Your task to perform on an android device: Do I have any events this weekend? Image 0: 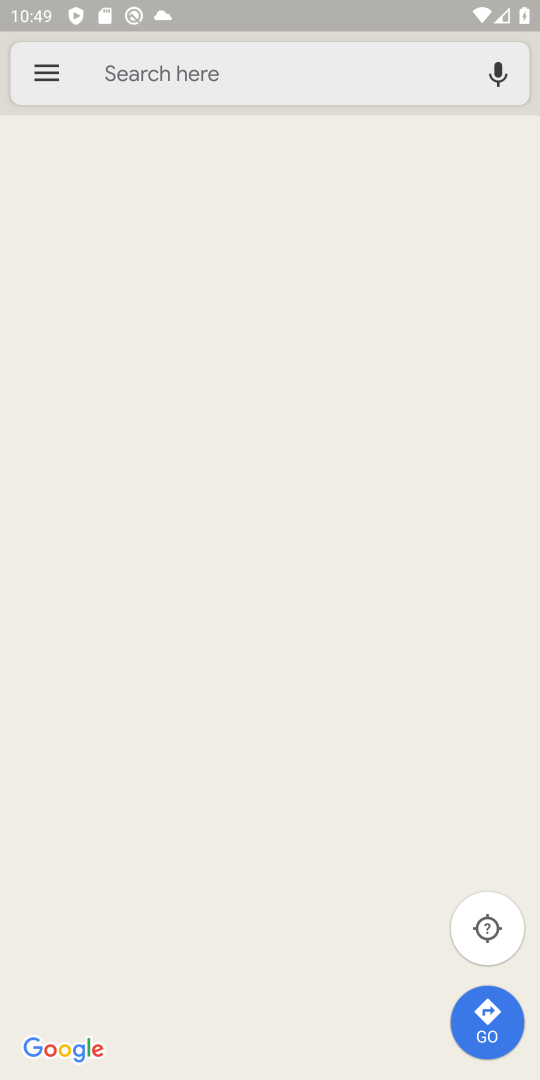
Step 0: press home button
Your task to perform on an android device: Do I have any events this weekend? Image 1: 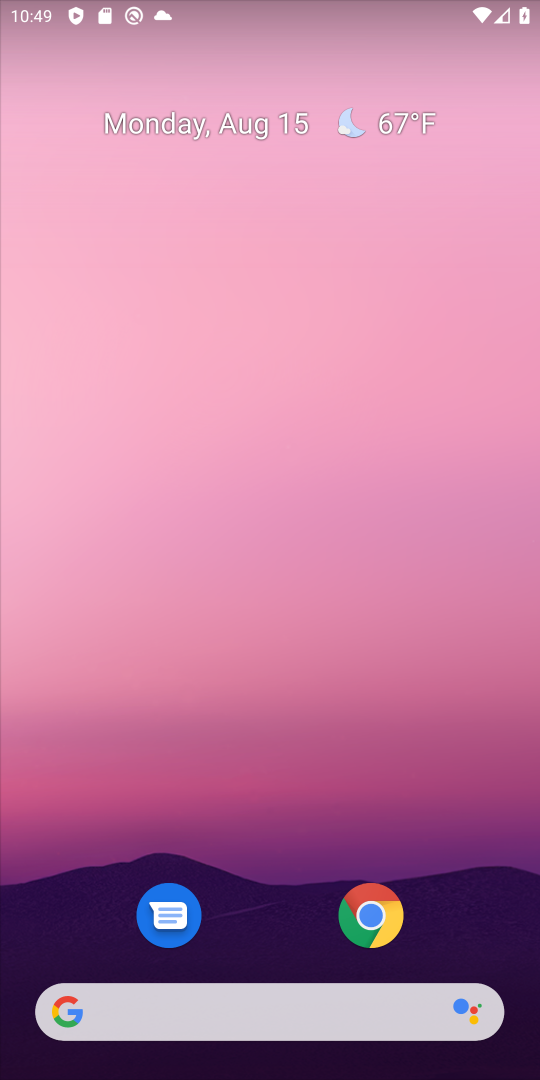
Step 1: drag from (293, 814) to (269, 393)
Your task to perform on an android device: Do I have any events this weekend? Image 2: 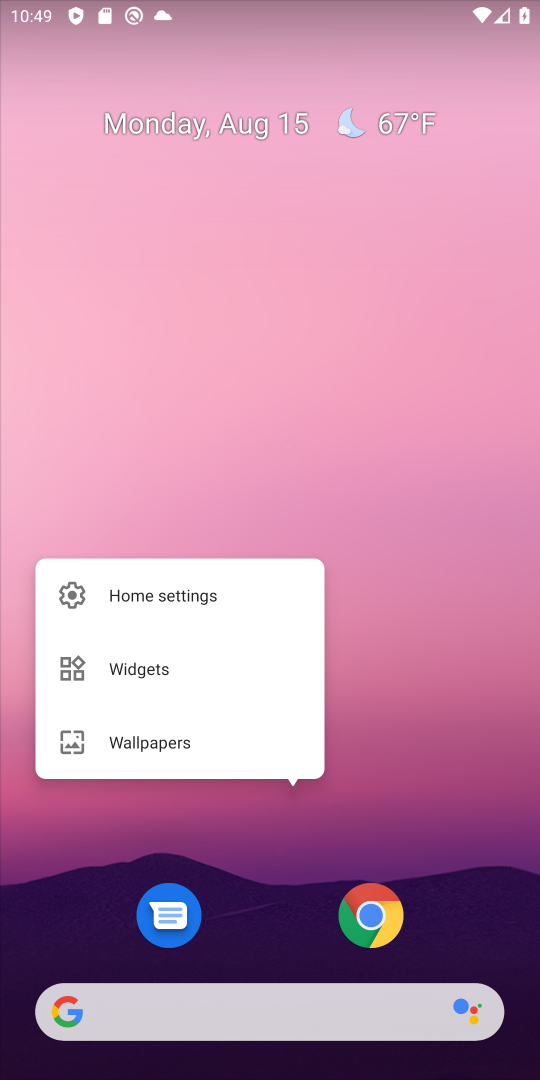
Step 2: click (282, 416)
Your task to perform on an android device: Do I have any events this weekend? Image 3: 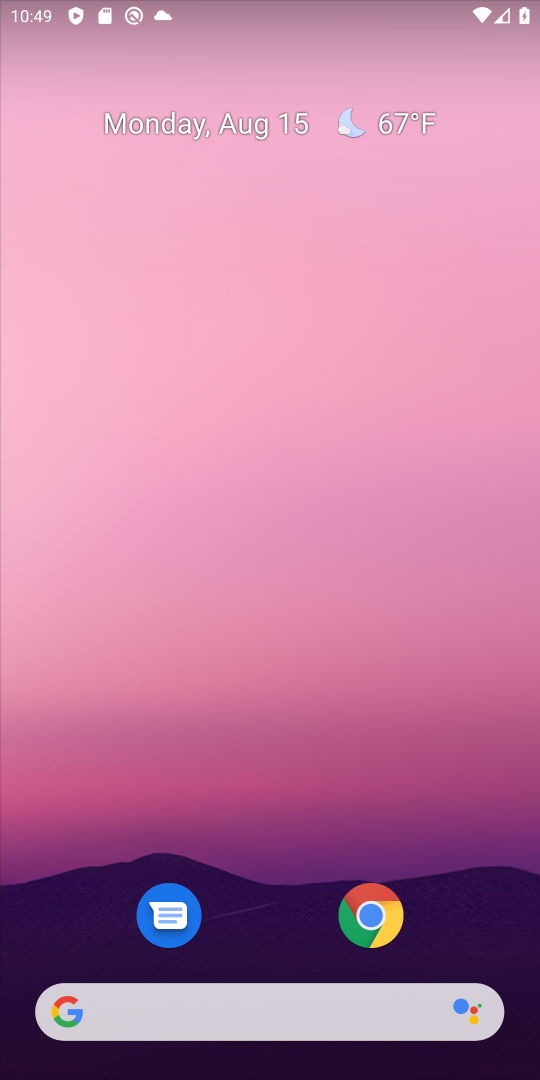
Step 3: drag from (281, 880) to (192, 70)
Your task to perform on an android device: Do I have any events this weekend? Image 4: 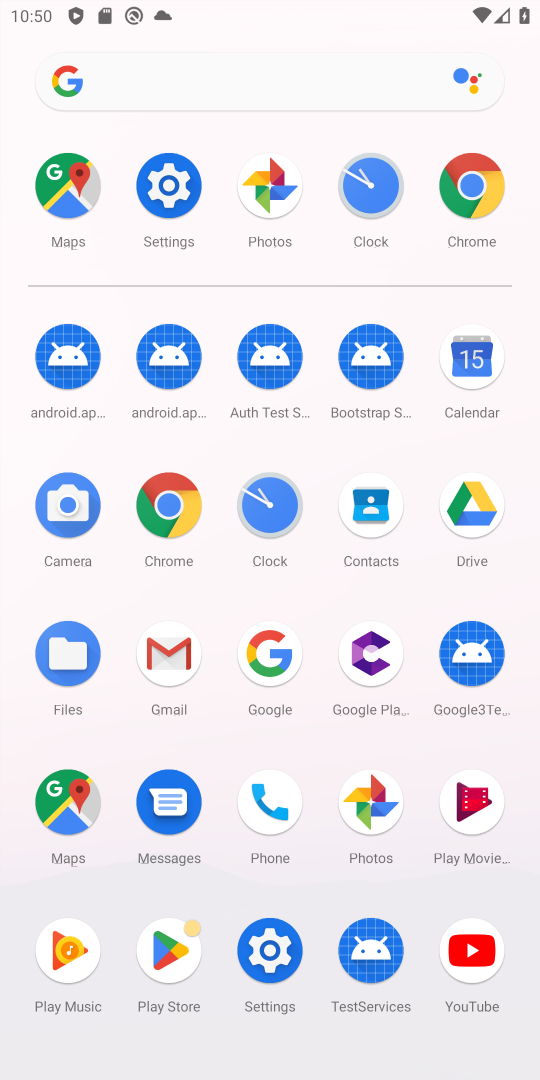
Step 4: click (480, 375)
Your task to perform on an android device: Do I have any events this weekend? Image 5: 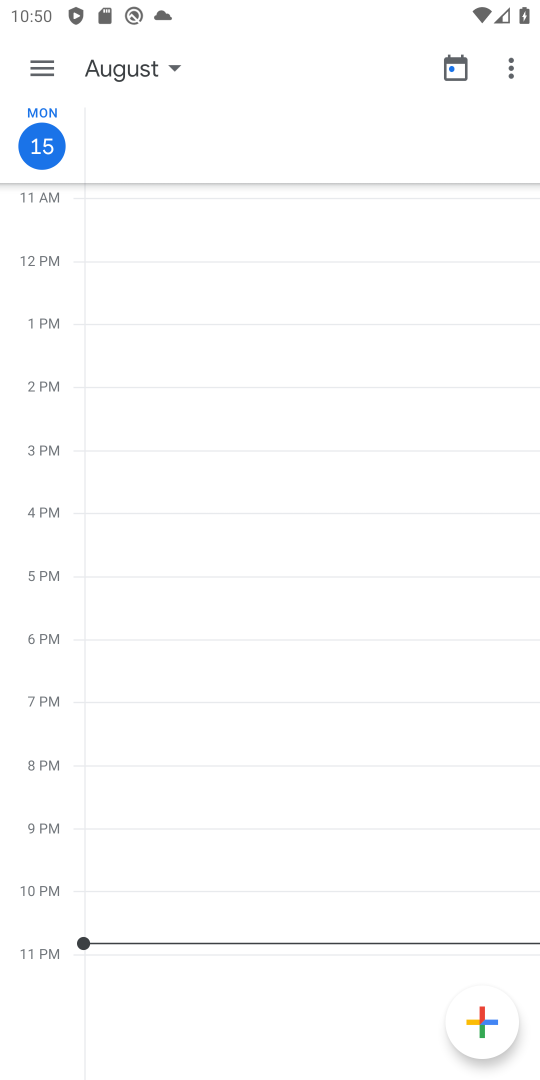
Step 5: click (45, 68)
Your task to perform on an android device: Do I have any events this weekend? Image 6: 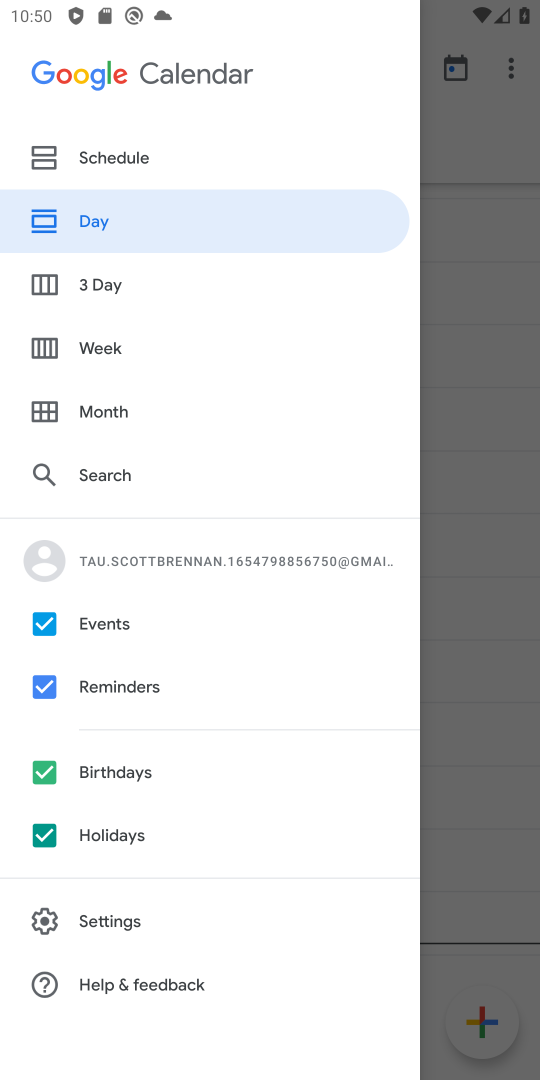
Step 6: click (141, 280)
Your task to perform on an android device: Do I have any events this weekend? Image 7: 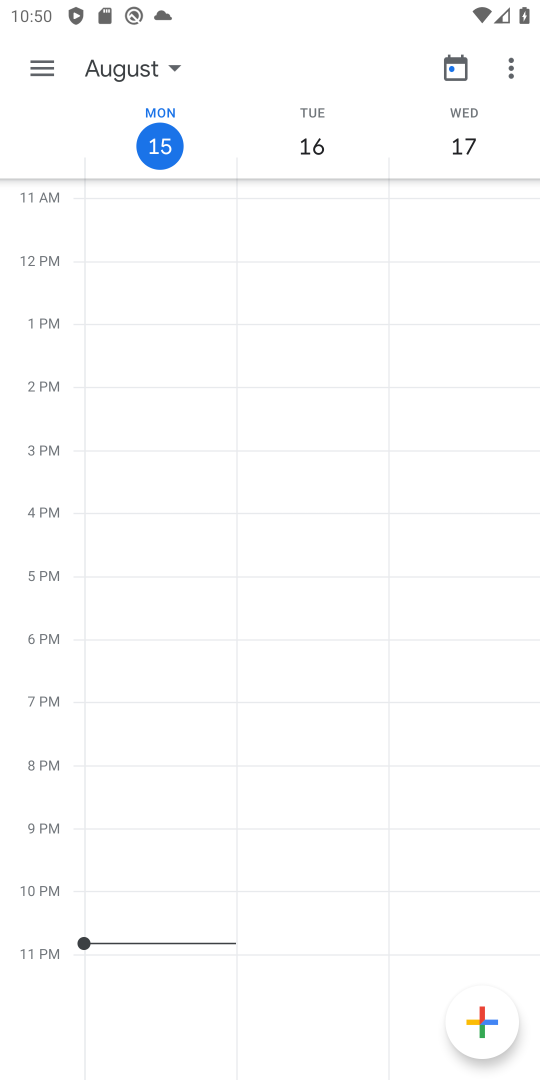
Step 7: click (136, 67)
Your task to perform on an android device: Do I have any events this weekend? Image 8: 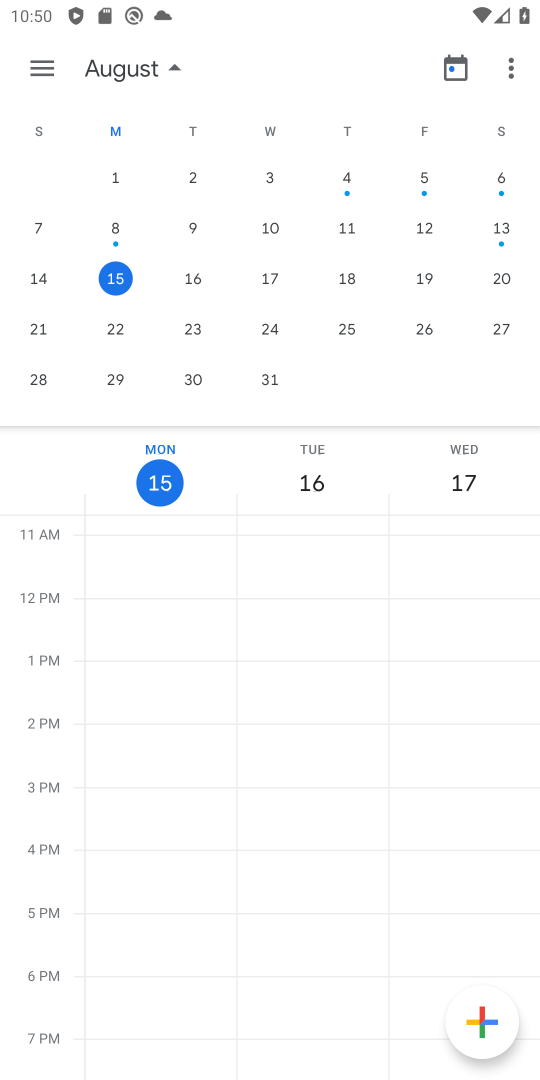
Step 8: click (417, 281)
Your task to perform on an android device: Do I have any events this weekend? Image 9: 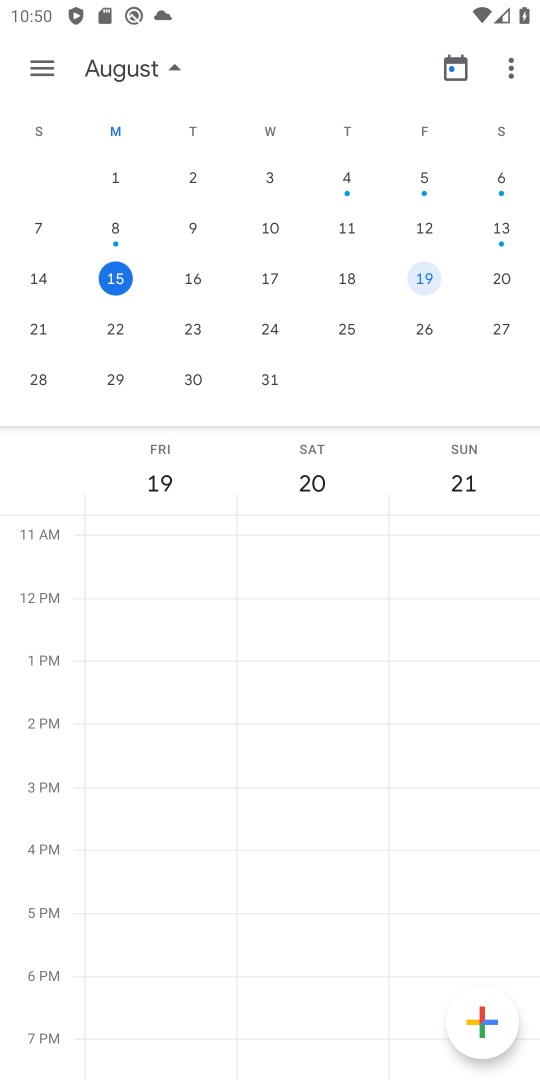
Step 9: click (423, 836)
Your task to perform on an android device: Do I have any events this weekend? Image 10: 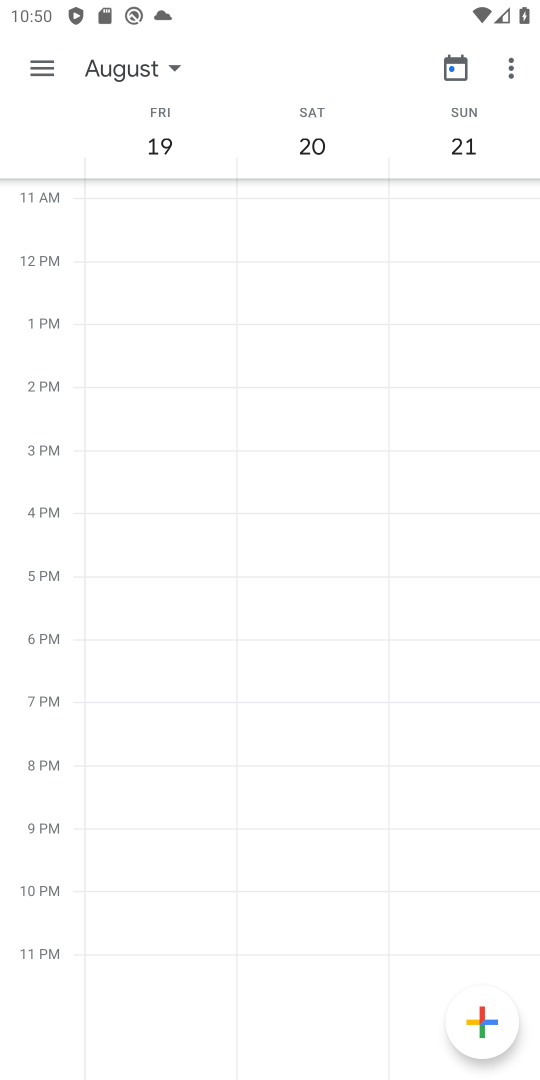
Step 10: task complete